Your task to perform on an android device: empty trash in the gmail app Image 0: 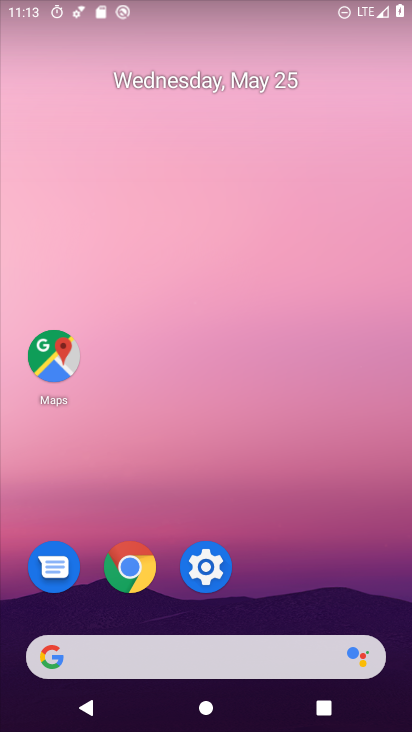
Step 0: drag from (149, 511) to (71, 211)
Your task to perform on an android device: empty trash in the gmail app Image 1: 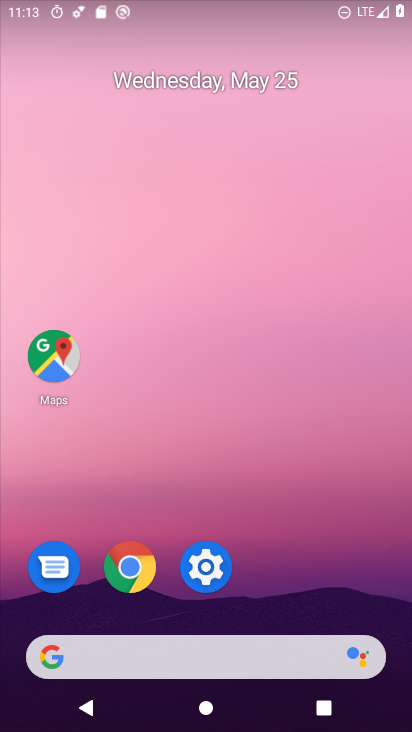
Step 1: drag from (253, 579) to (216, 226)
Your task to perform on an android device: empty trash in the gmail app Image 2: 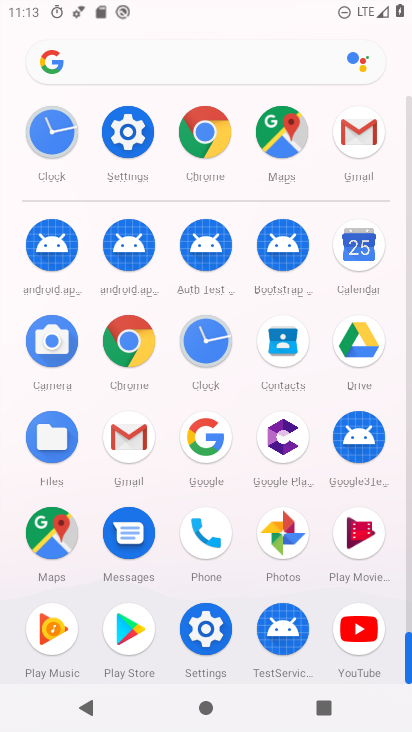
Step 2: click (115, 439)
Your task to perform on an android device: empty trash in the gmail app Image 3: 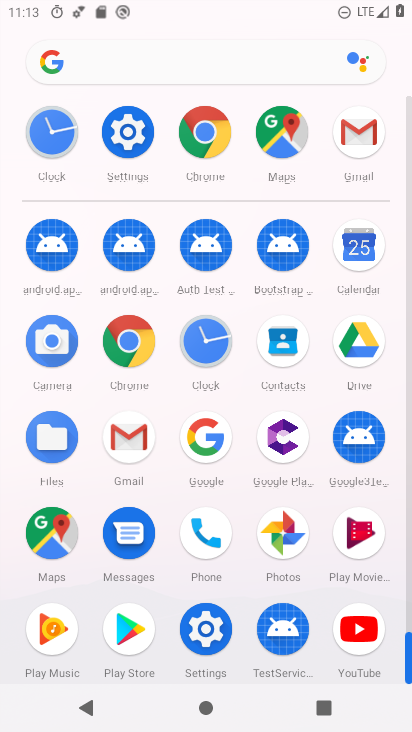
Step 3: click (115, 439)
Your task to perform on an android device: empty trash in the gmail app Image 4: 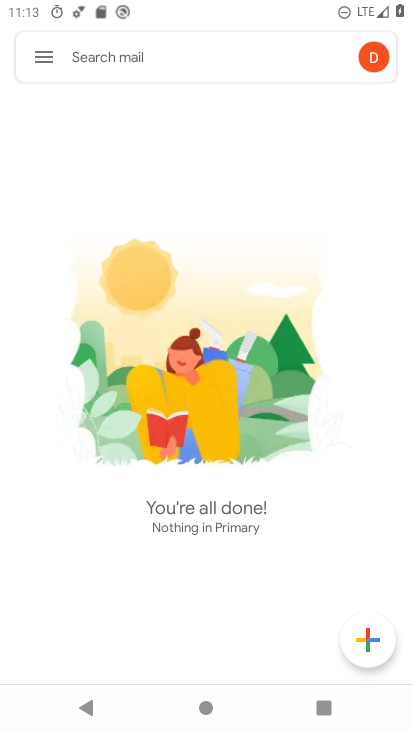
Step 4: click (42, 59)
Your task to perform on an android device: empty trash in the gmail app Image 5: 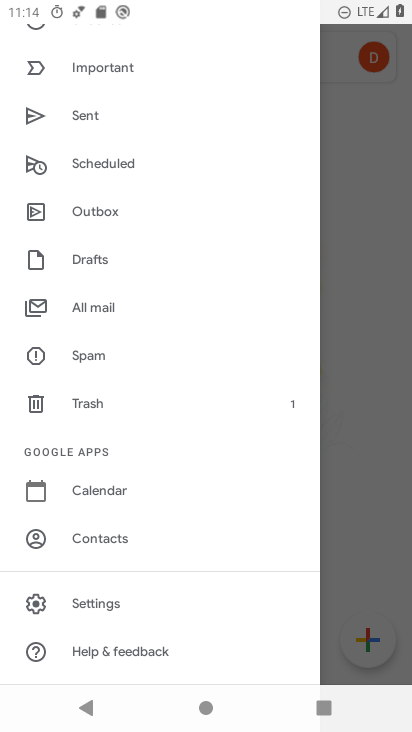
Step 5: click (104, 613)
Your task to perform on an android device: empty trash in the gmail app Image 6: 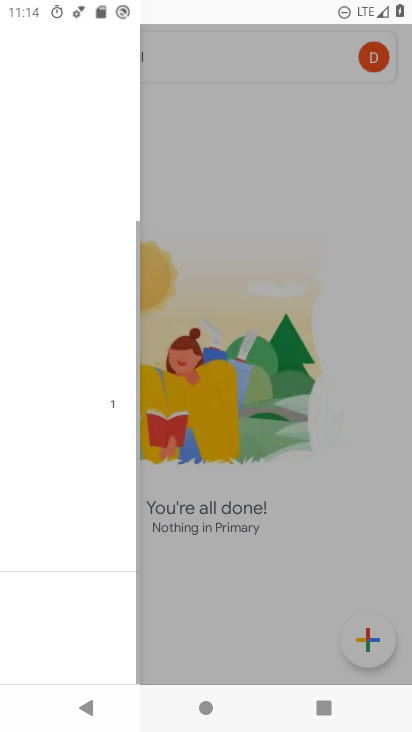
Step 6: click (105, 612)
Your task to perform on an android device: empty trash in the gmail app Image 7: 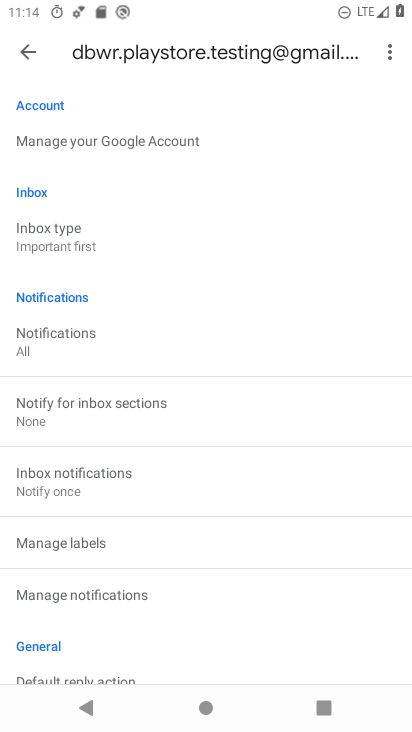
Step 7: click (127, 144)
Your task to perform on an android device: empty trash in the gmail app Image 8: 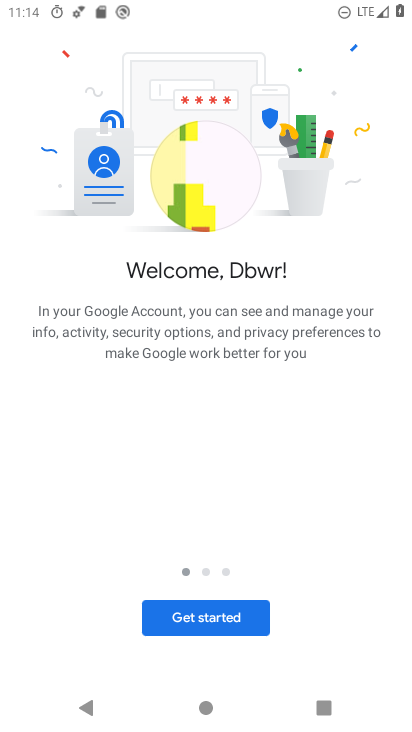
Step 8: press back button
Your task to perform on an android device: empty trash in the gmail app Image 9: 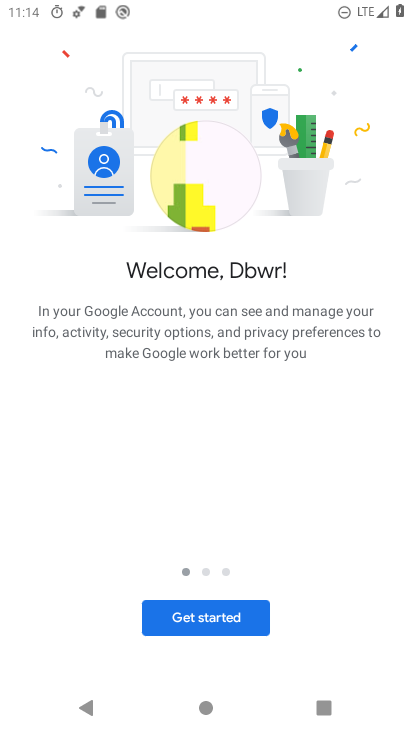
Step 9: press back button
Your task to perform on an android device: empty trash in the gmail app Image 10: 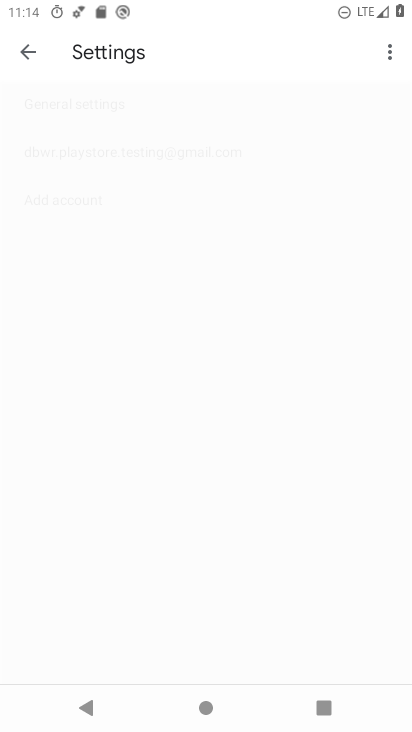
Step 10: press back button
Your task to perform on an android device: empty trash in the gmail app Image 11: 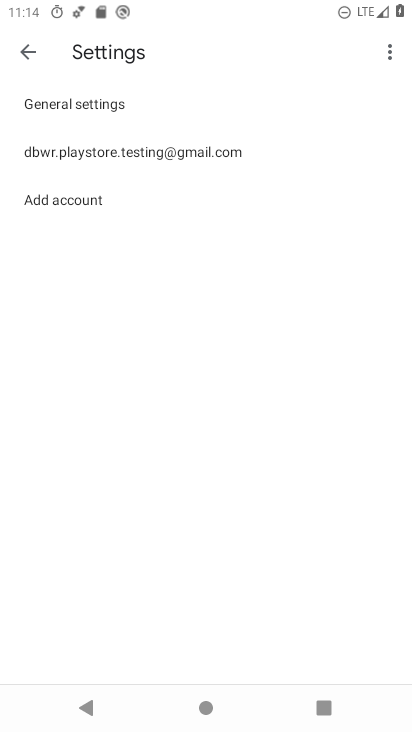
Step 11: press back button
Your task to perform on an android device: empty trash in the gmail app Image 12: 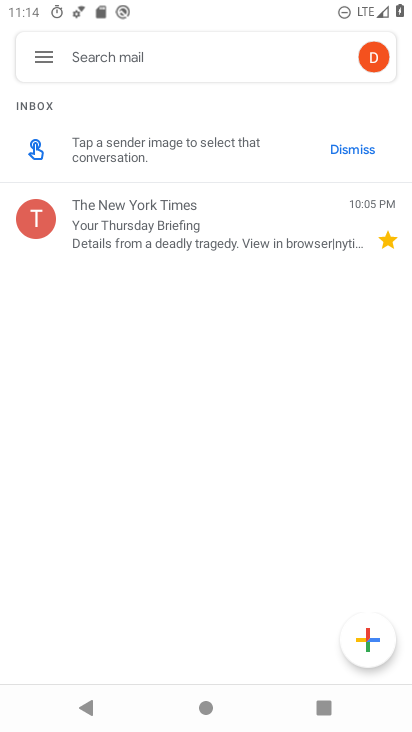
Step 12: click (31, 59)
Your task to perform on an android device: empty trash in the gmail app Image 13: 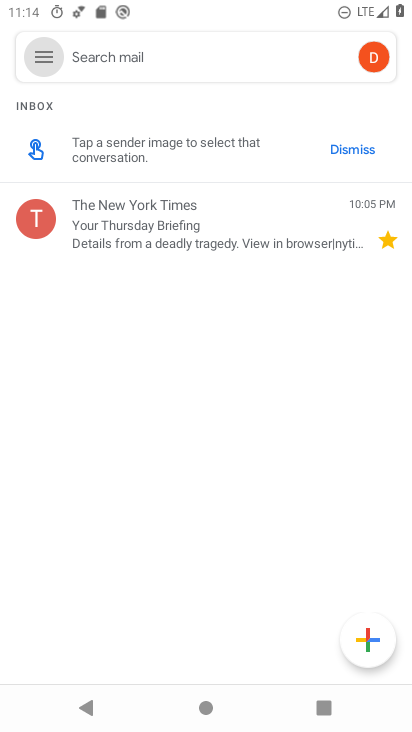
Step 13: click (32, 59)
Your task to perform on an android device: empty trash in the gmail app Image 14: 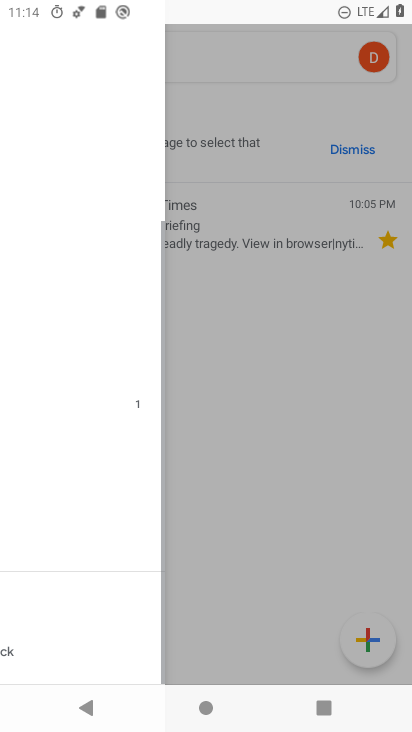
Step 14: drag from (32, 59) to (23, 420)
Your task to perform on an android device: empty trash in the gmail app Image 15: 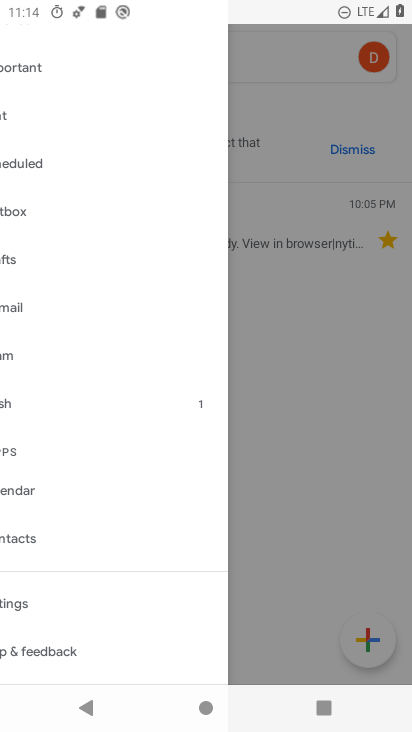
Step 15: click (27, 414)
Your task to perform on an android device: empty trash in the gmail app Image 16: 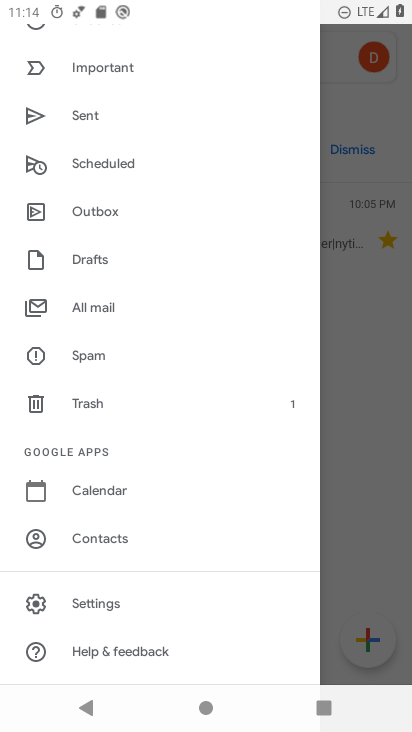
Step 16: click (72, 411)
Your task to perform on an android device: empty trash in the gmail app Image 17: 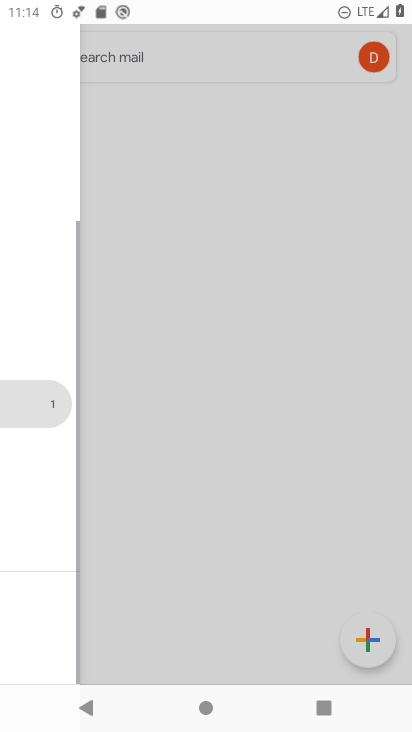
Step 17: click (82, 405)
Your task to perform on an android device: empty trash in the gmail app Image 18: 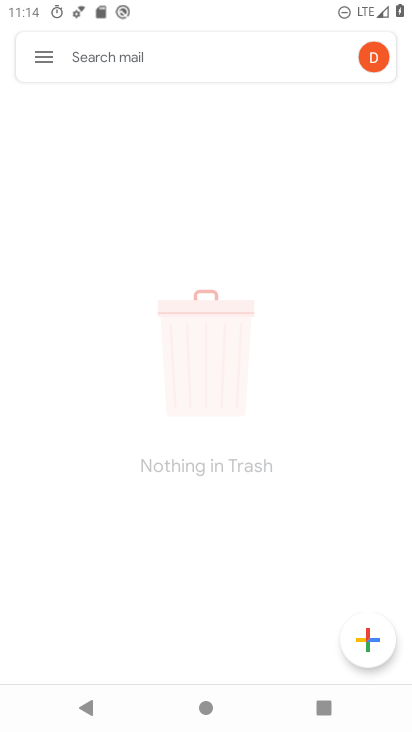
Step 18: click (83, 405)
Your task to perform on an android device: empty trash in the gmail app Image 19: 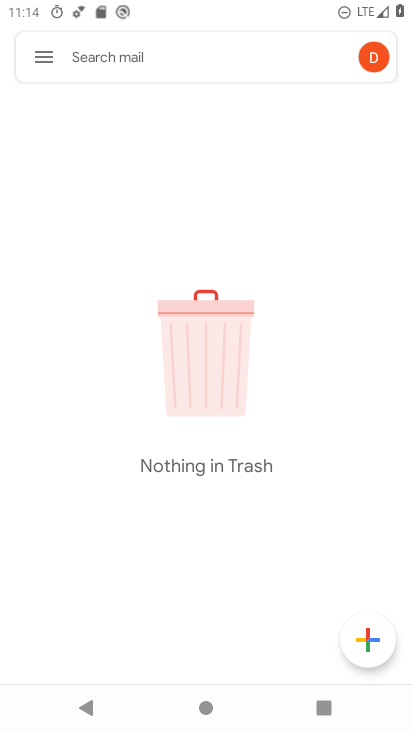
Step 19: task complete